Your task to perform on an android device: Open settings Image 0: 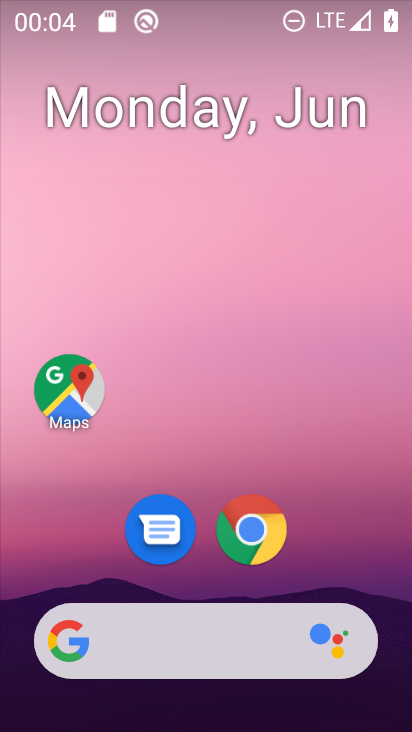
Step 0: drag from (395, 647) to (363, 0)
Your task to perform on an android device: Open settings Image 1: 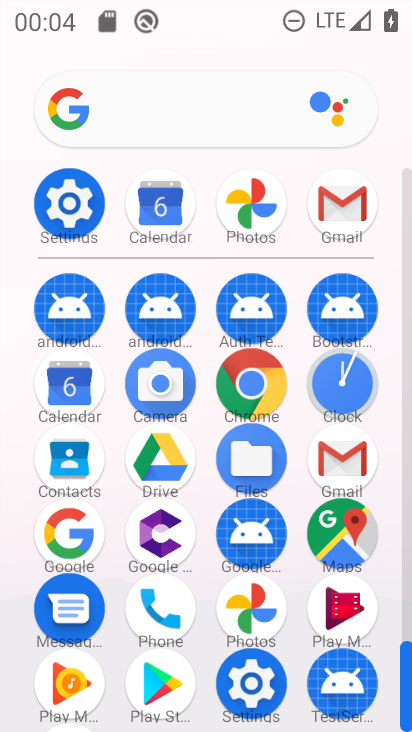
Step 1: click (253, 689)
Your task to perform on an android device: Open settings Image 2: 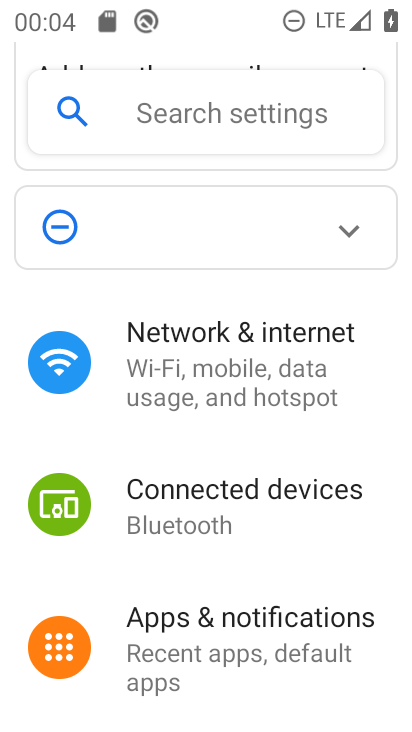
Step 2: task complete